Your task to perform on an android device: See recent photos Image 0: 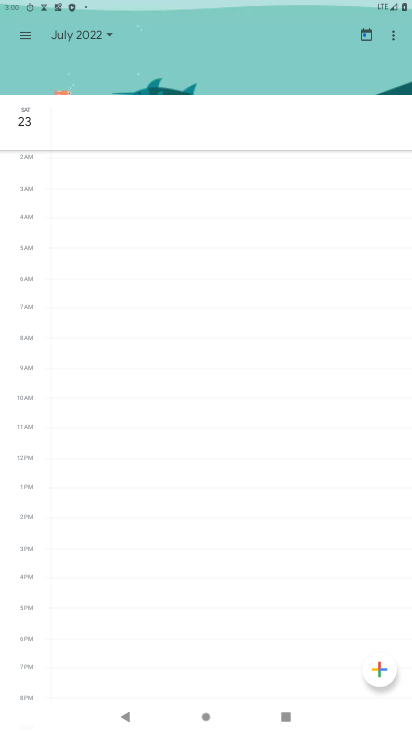
Step 0: press home button
Your task to perform on an android device: See recent photos Image 1: 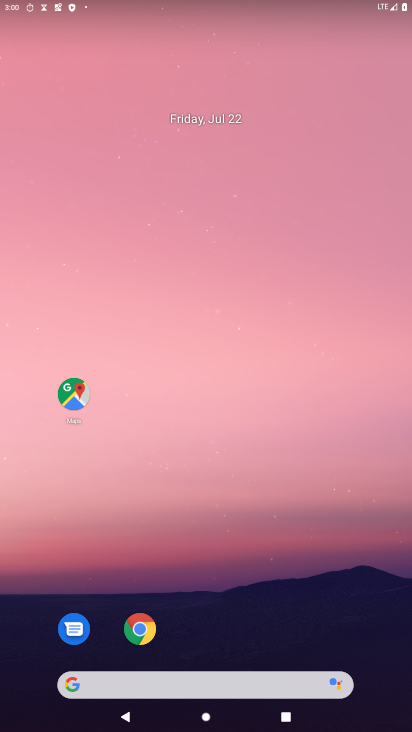
Step 1: drag from (195, 676) to (290, 14)
Your task to perform on an android device: See recent photos Image 2: 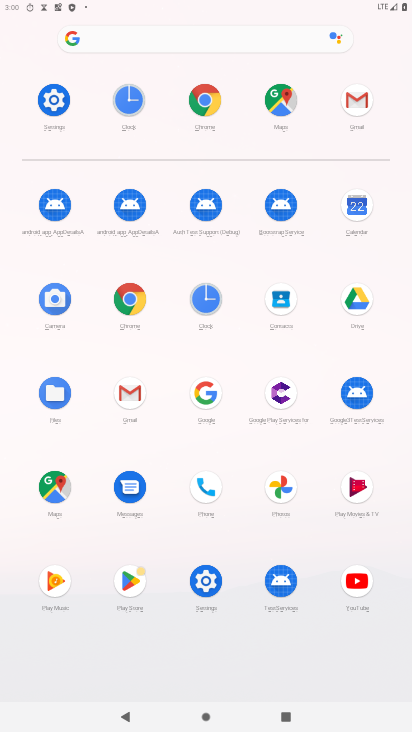
Step 2: click (284, 483)
Your task to perform on an android device: See recent photos Image 3: 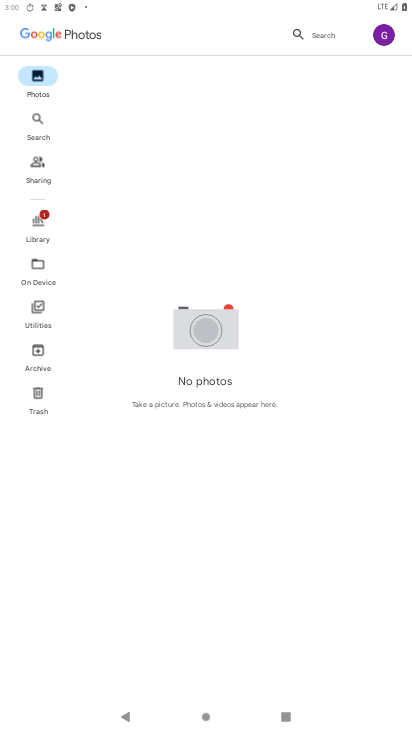
Step 3: click (45, 75)
Your task to perform on an android device: See recent photos Image 4: 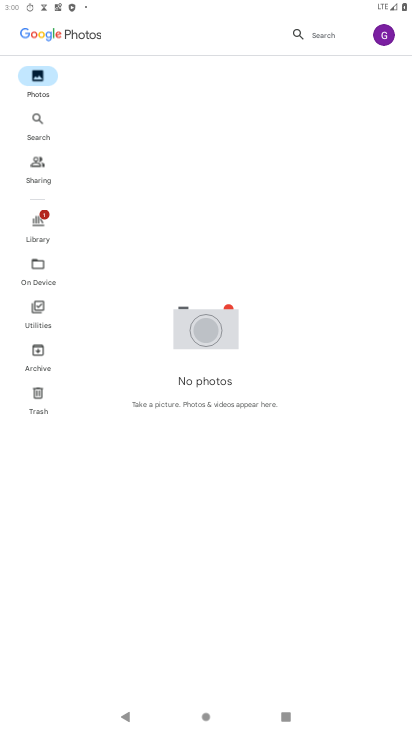
Step 4: task complete